Your task to perform on an android device: Turn on the flashlight Image 0: 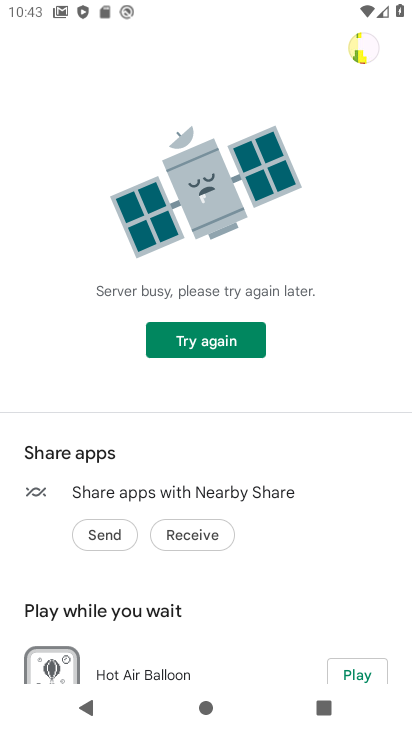
Step 0: press back button
Your task to perform on an android device: Turn on the flashlight Image 1: 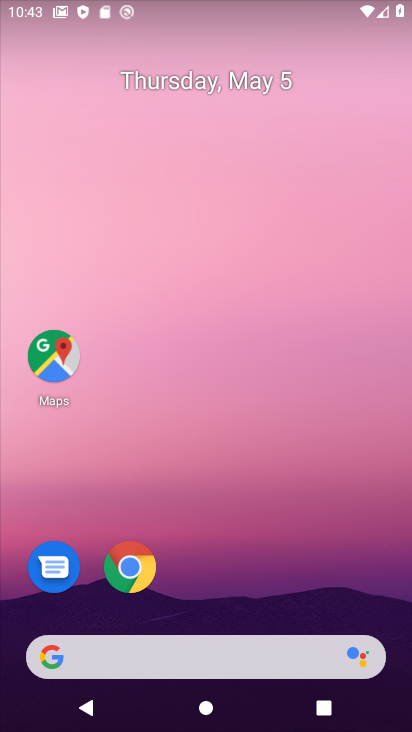
Step 1: drag from (201, 500) to (255, 74)
Your task to perform on an android device: Turn on the flashlight Image 2: 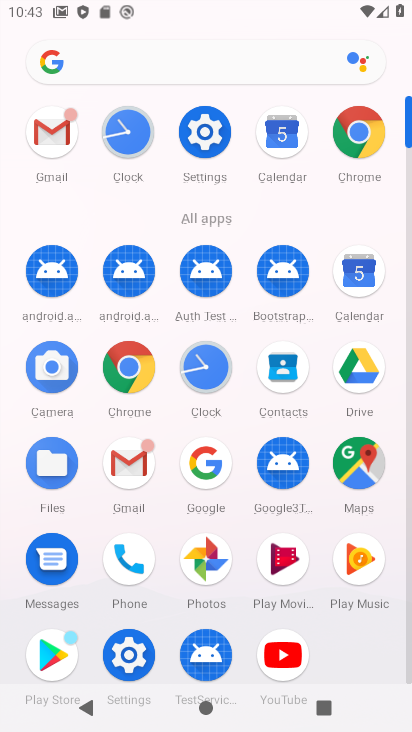
Step 2: click (193, 139)
Your task to perform on an android device: Turn on the flashlight Image 3: 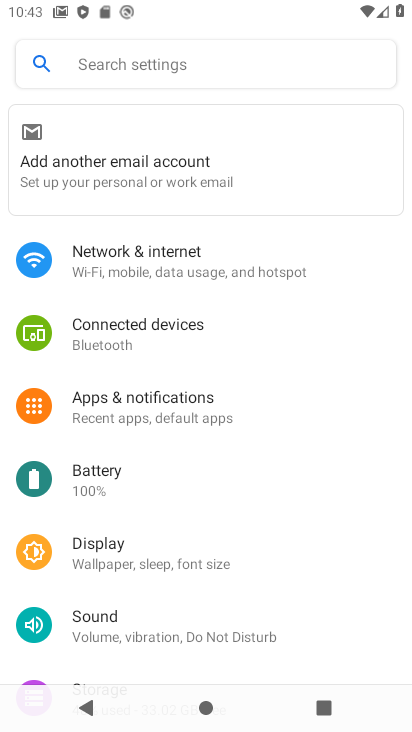
Step 3: click (111, 56)
Your task to perform on an android device: Turn on the flashlight Image 4: 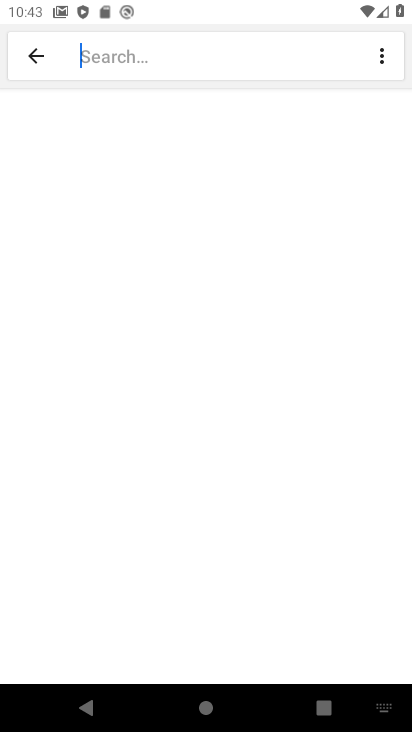
Step 4: type "flashlight"
Your task to perform on an android device: Turn on the flashlight Image 5: 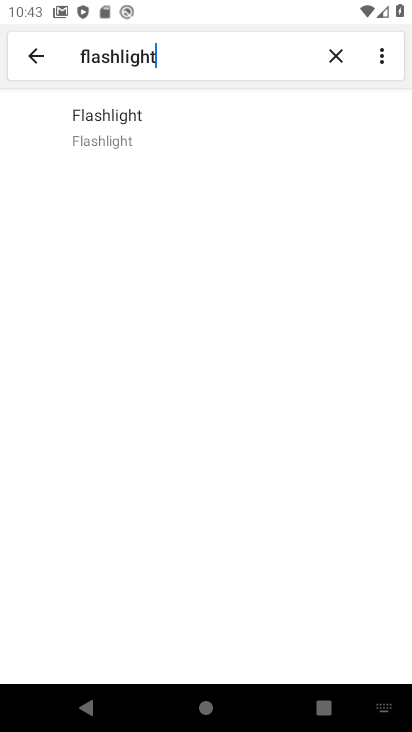
Step 5: click (109, 136)
Your task to perform on an android device: Turn on the flashlight Image 6: 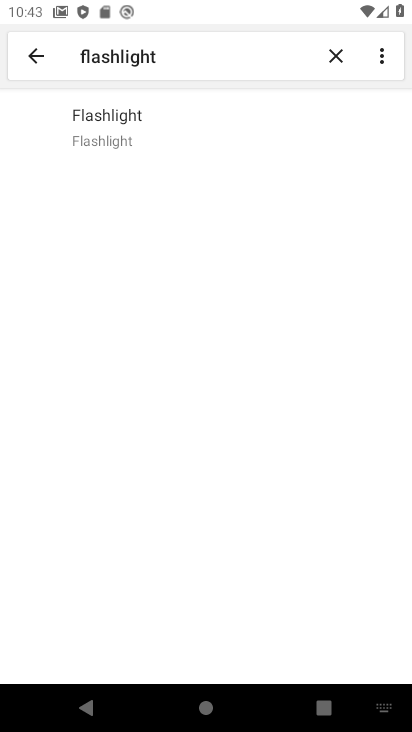
Step 6: click (112, 125)
Your task to perform on an android device: Turn on the flashlight Image 7: 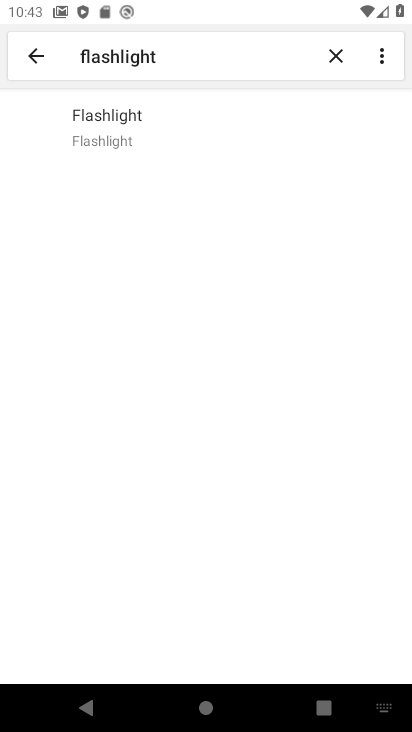
Step 7: task complete